Your task to perform on an android device: Open Google Image 0: 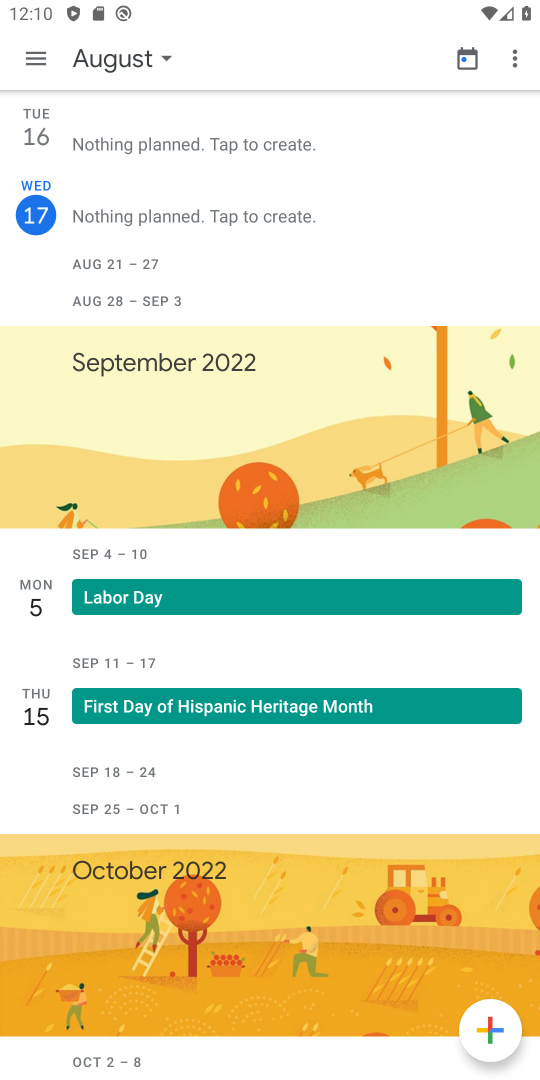
Step 0: press home button
Your task to perform on an android device: Open Google Image 1: 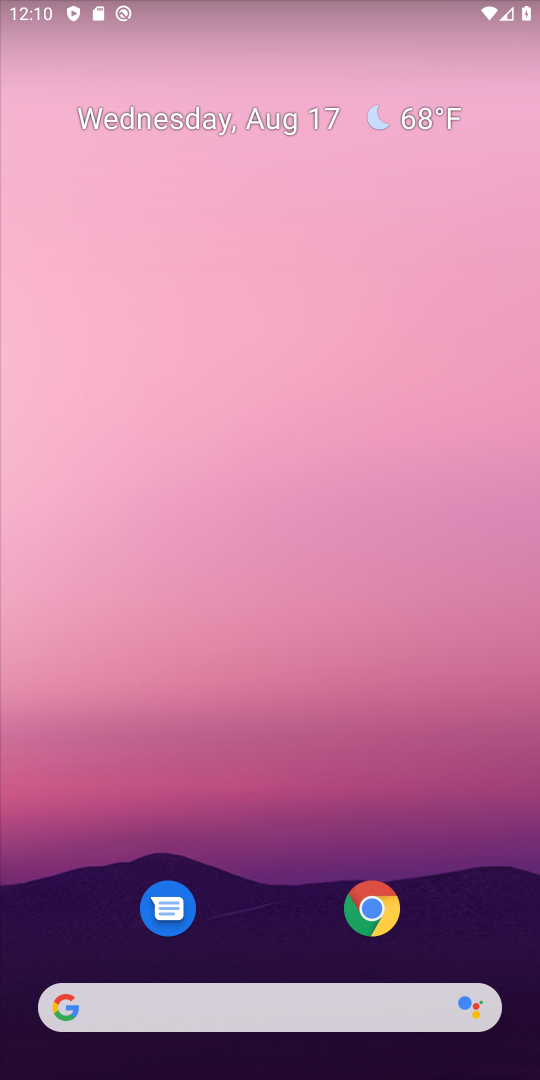
Step 1: drag from (288, 873) to (277, 239)
Your task to perform on an android device: Open Google Image 2: 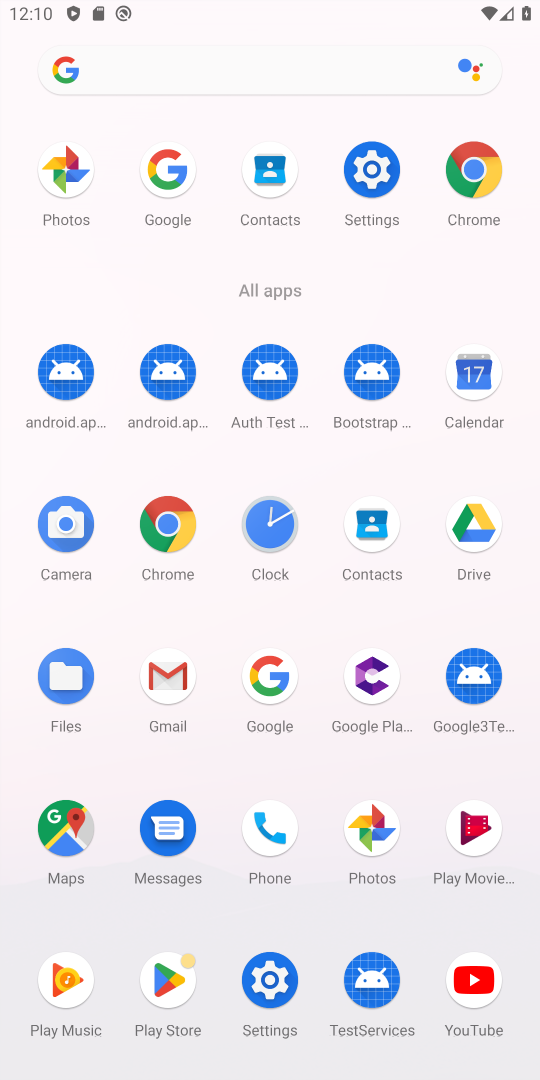
Step 2: click (163, 187)
Your task to perform on an android device: Open Google Image 3: 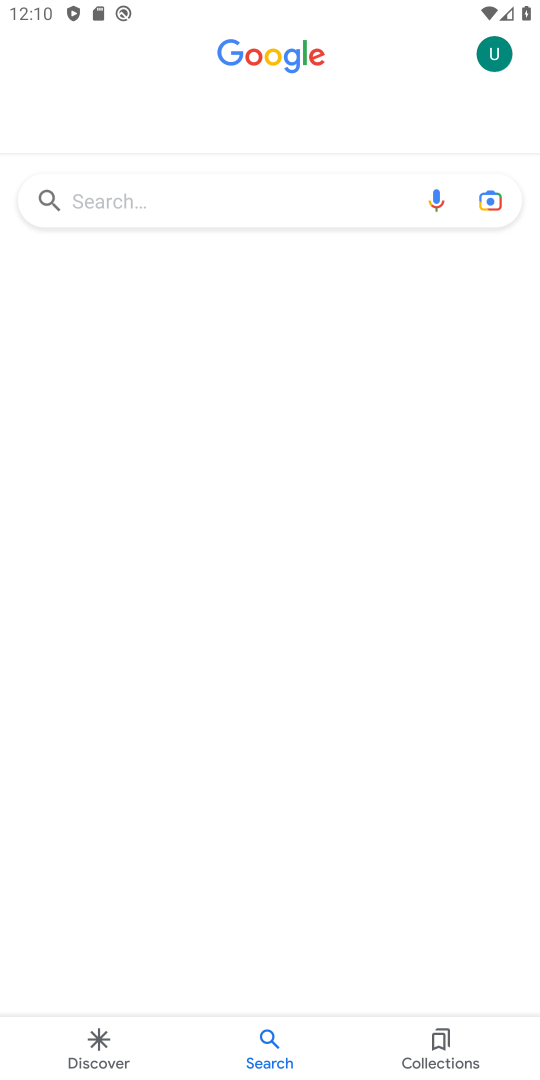
Step 3: task complete